Your task to perform on an android device: Open display settings Image 0: 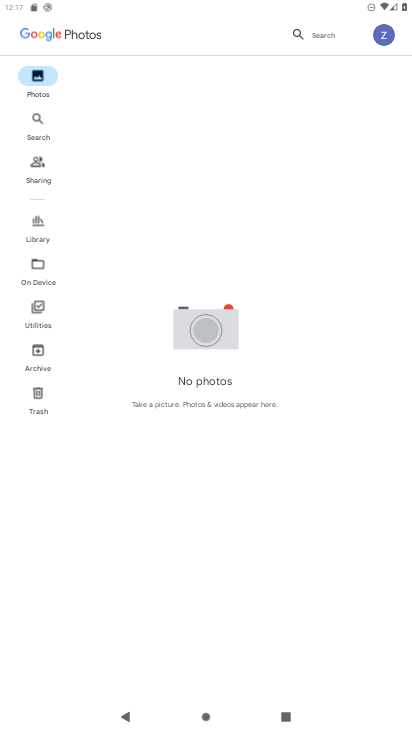
Step 0: press home button
Your task to perform on an android device: Open display settings Image 1: 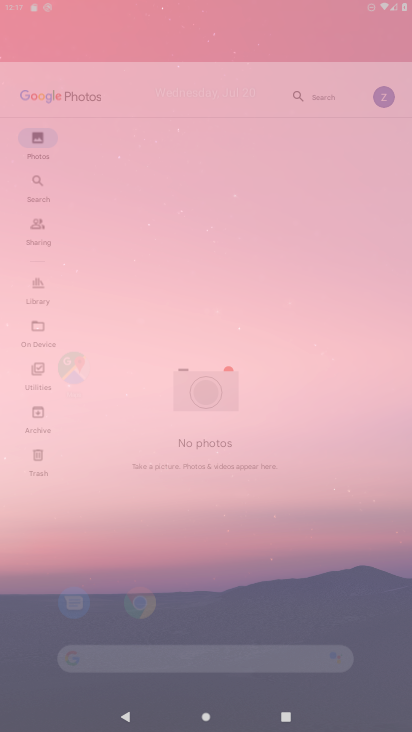
Step 1: drag from (233, 449) to (254, 150)
Your task to perform on an android device: Open display settings Image 2: 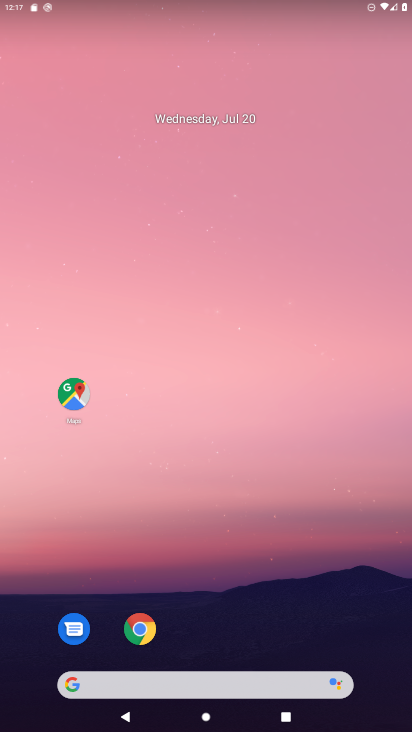
Step 2: drag from (198, 506) to (375, 44)
Your task to perform on an android device: Open display settings Image 3: 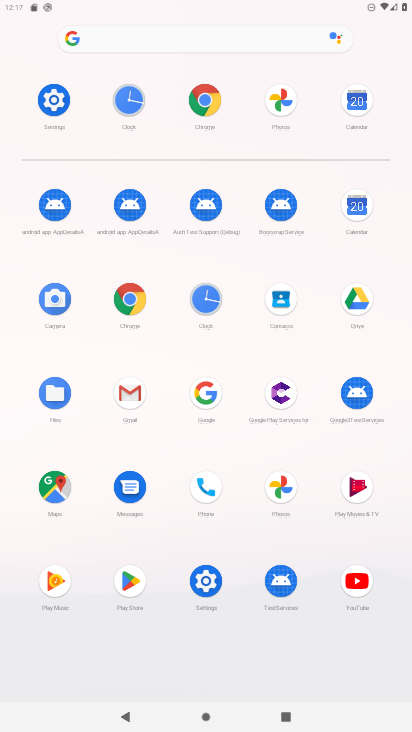
Step 3: click (48, 104)
Your task to perform on an android device: Open display settings Image 4: 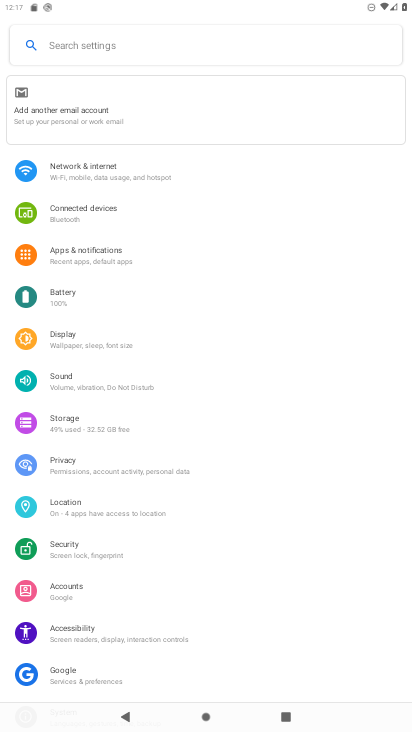
Step 4: click (125, 325)
Your task to perform on an android device: Open display settings Image 5: 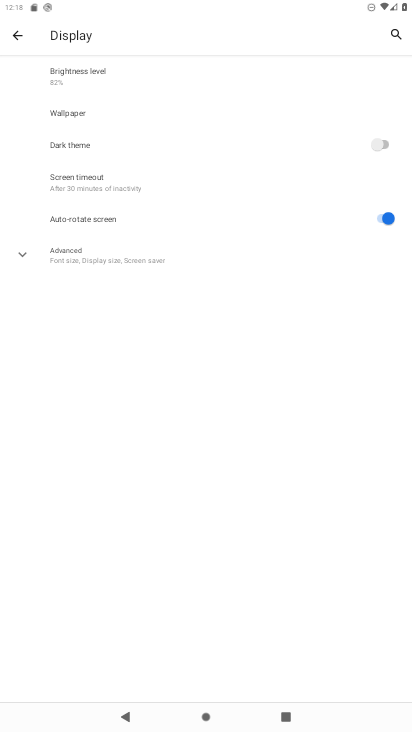
Step 5: task complete